Your task to perform on an android device: turn off priority inbox in the gmail app Image 0: 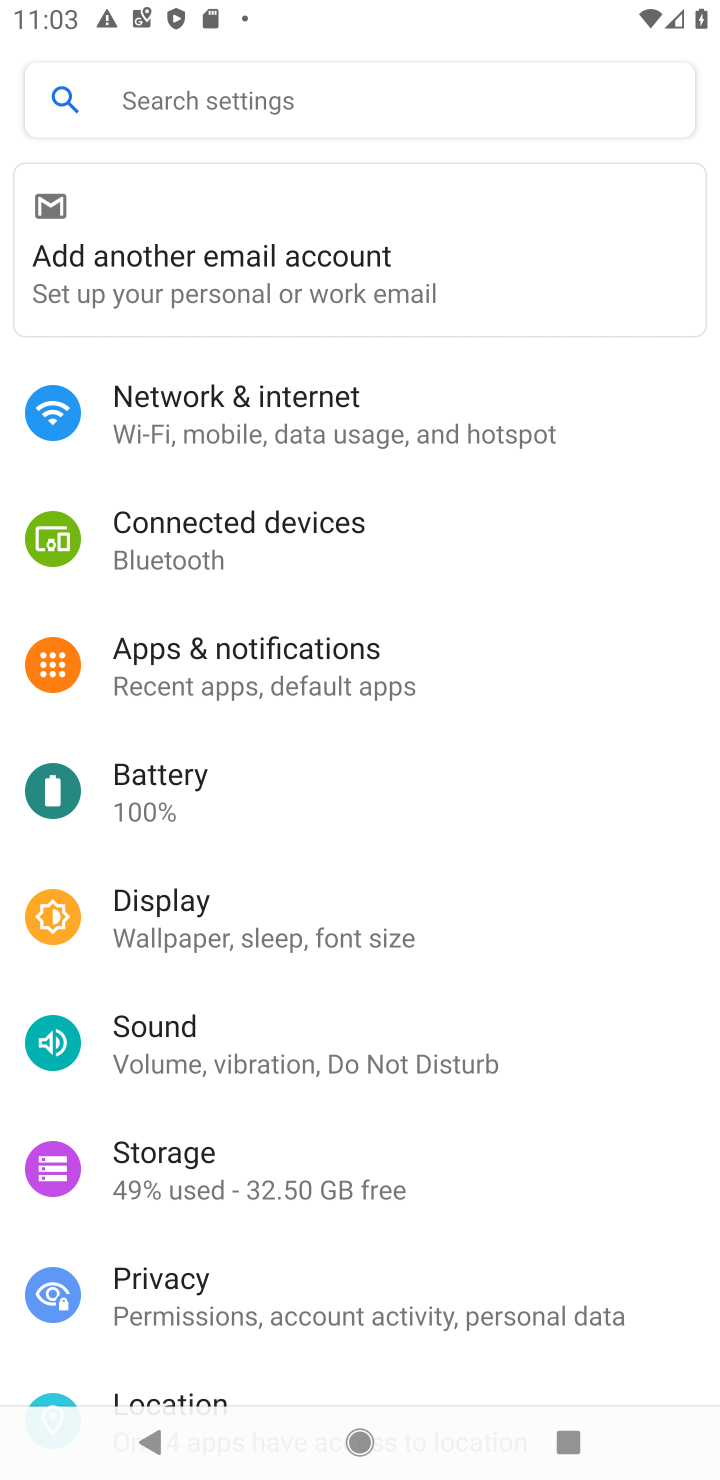
Step 0: click (299, 378)
Your task to perform on an android device: turn off priority inbox in the gmail app Image 1: 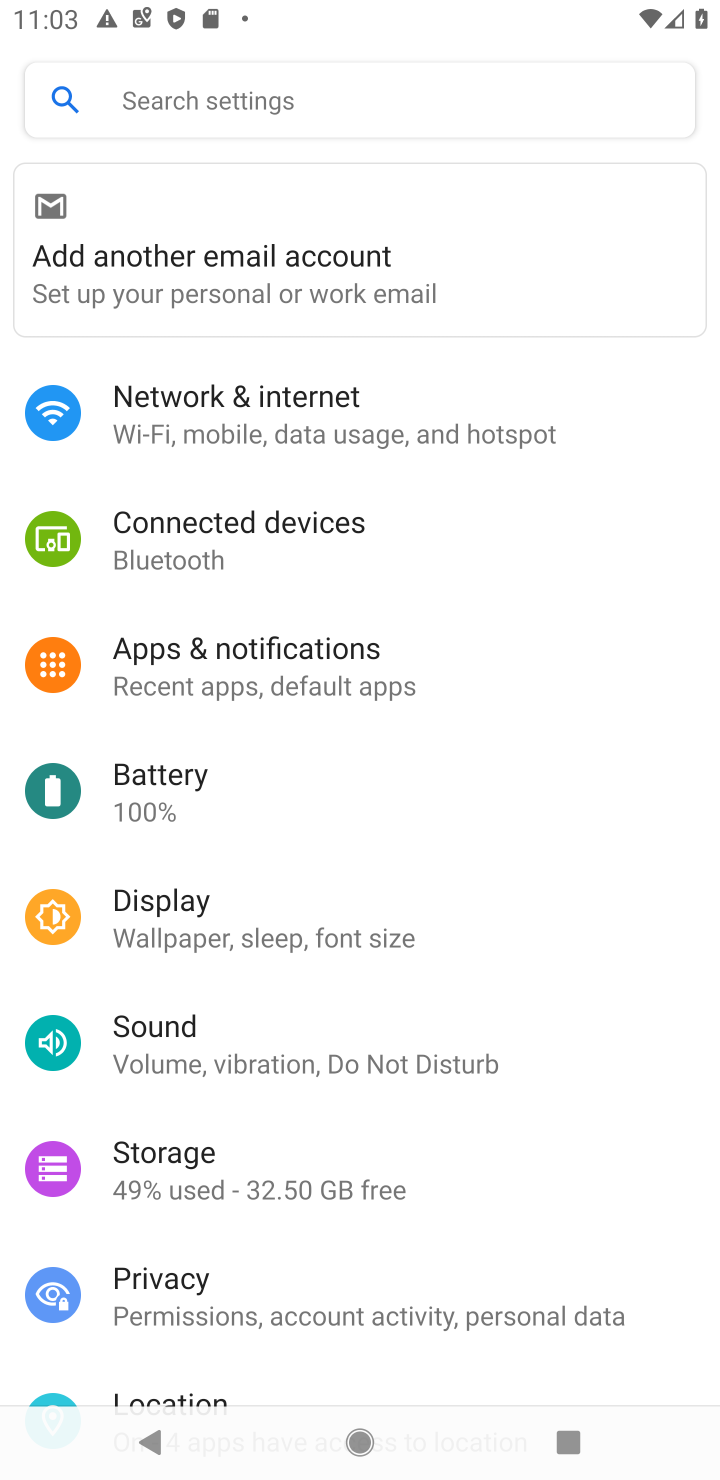
Step 1: drag from (370, 1172) to (104, 1056)
Your task to perform on an android device: turn off priority inbox in the gmail app Image 2: 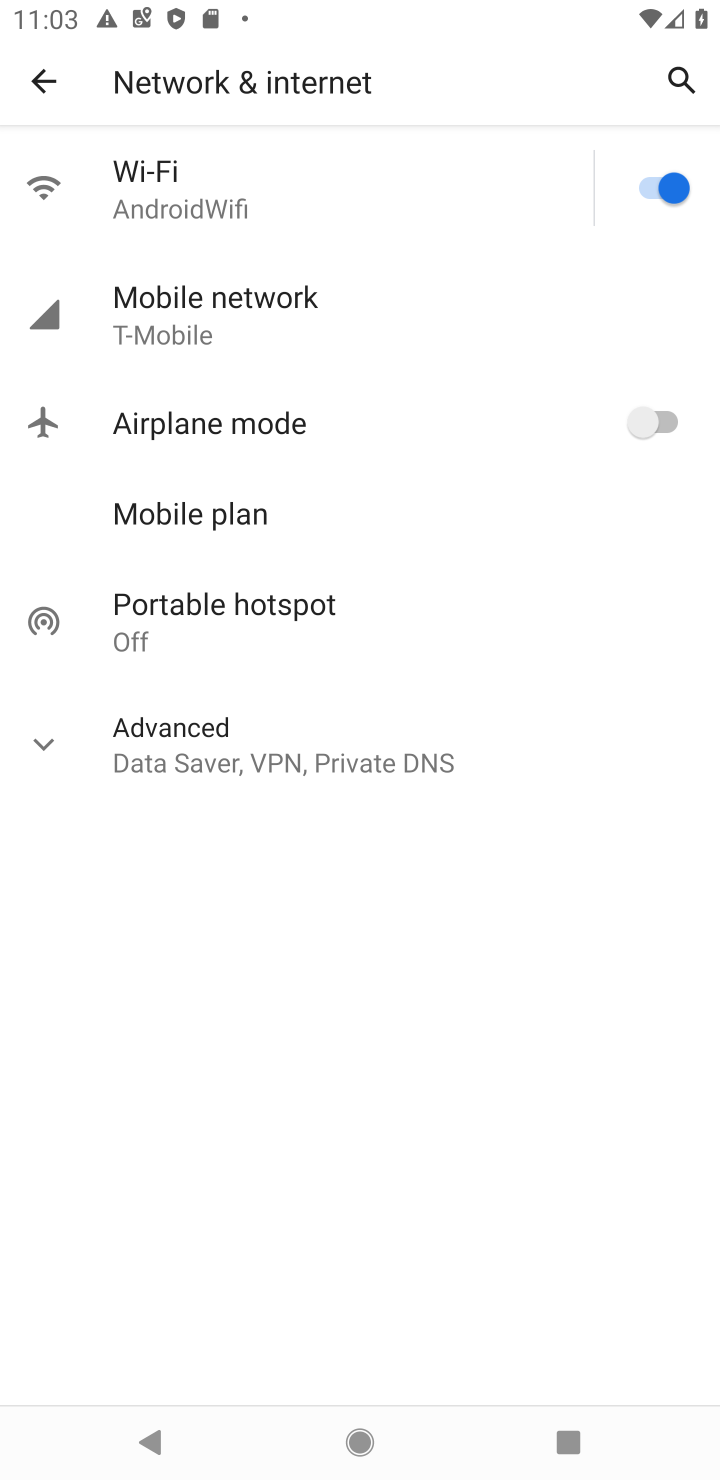
Step 2: drag from (347, 1102) to (385, 549)
Your task to perform on an android device: turn off priority inbox in the gmail app Image 3: 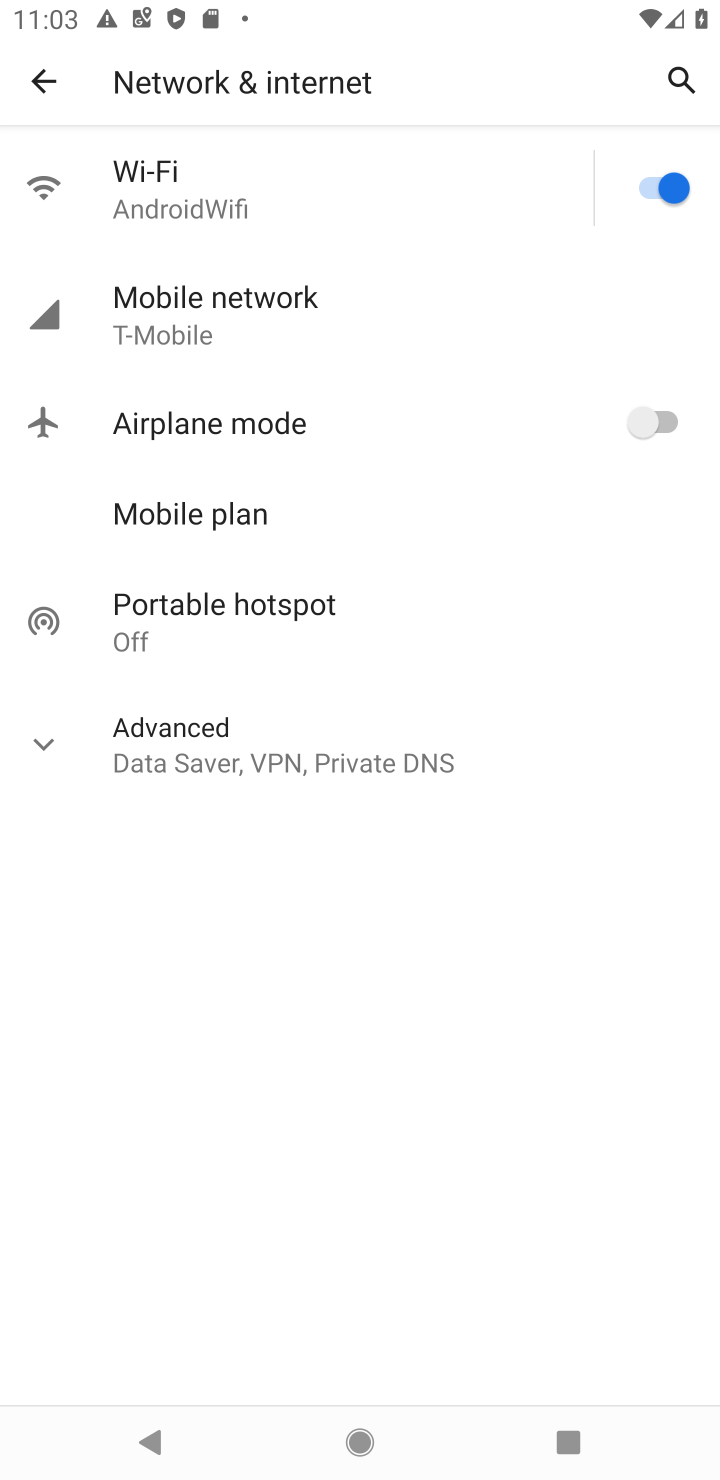
Step 3: drag from (394, 1120) to (392, 914)
Your task to perform on an android device: turn off priority inbox in the gmail app Image 4: 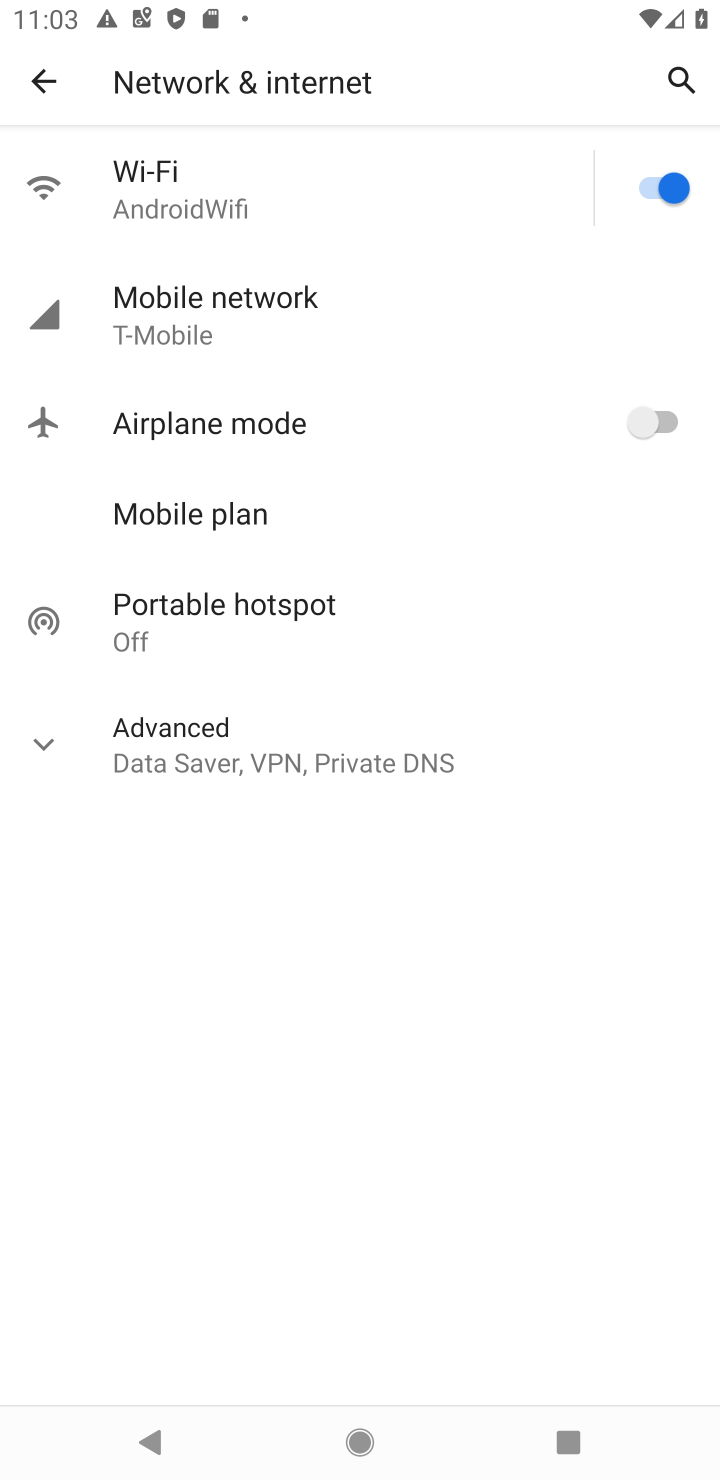
Step 4: drag from (358, 278) to (442, 1130)
Your task to perform on an android device: turn off priority inbox in the gmail app Image 5: 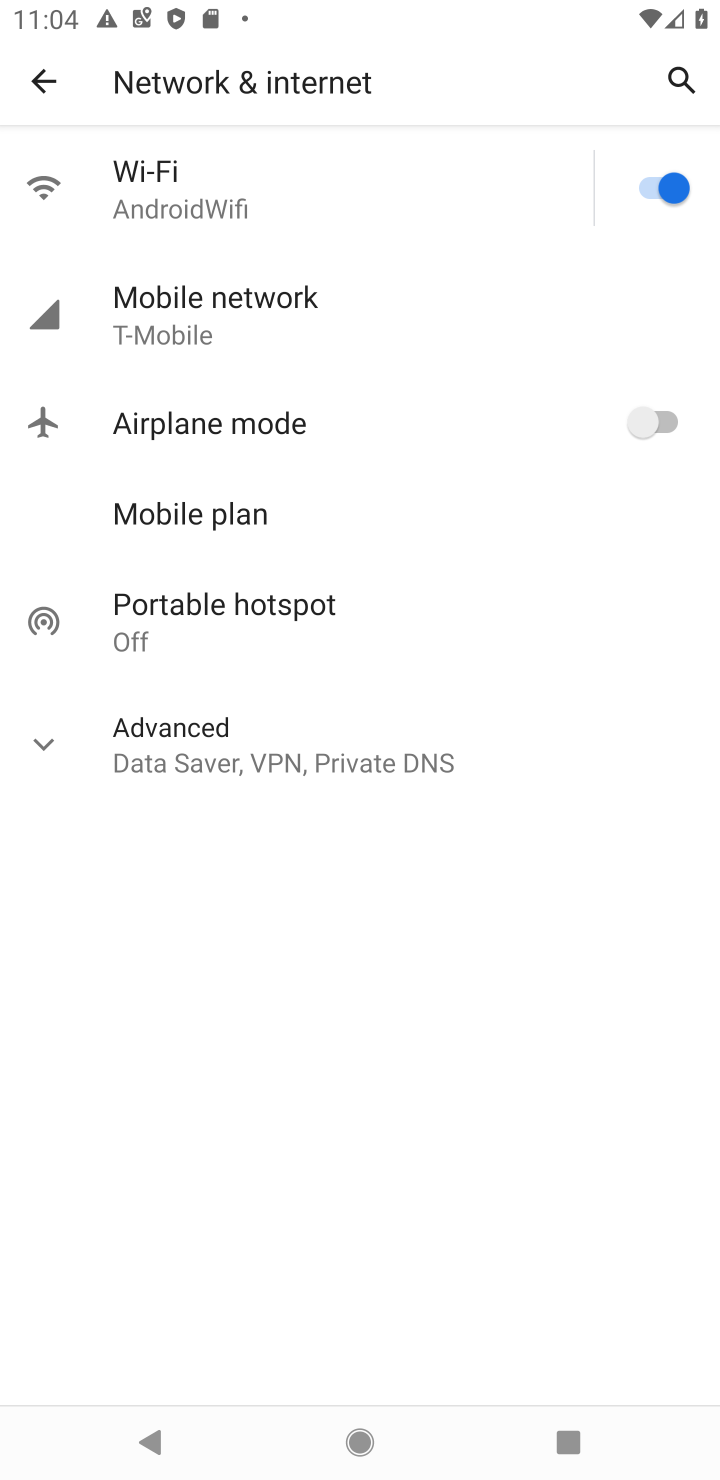
Step 5: press home button
Your task to perform on an android device: turn off priority inbox in the gmail app Image 6: 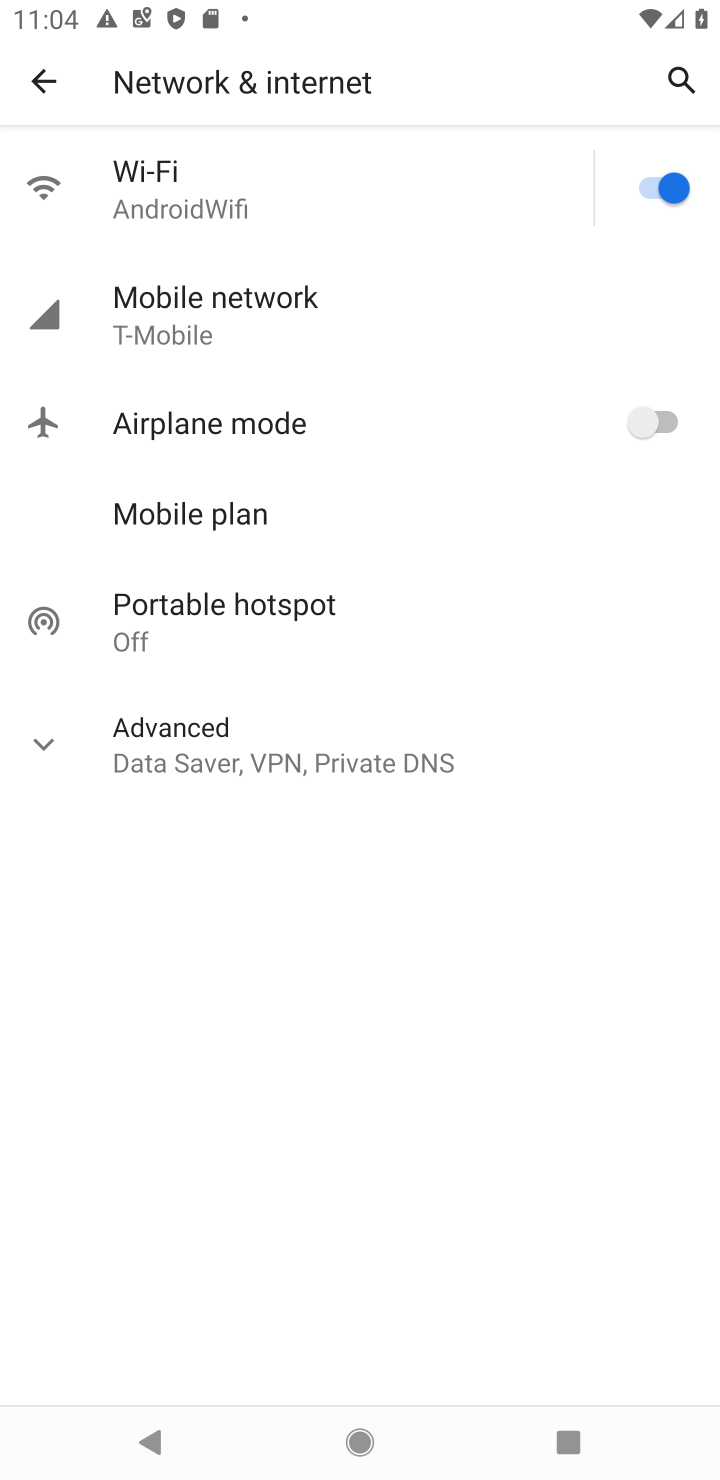
Step 6: click (318, 385)
Your task to perform on an android device: turn off priority inbox in the gmail app Image 7: 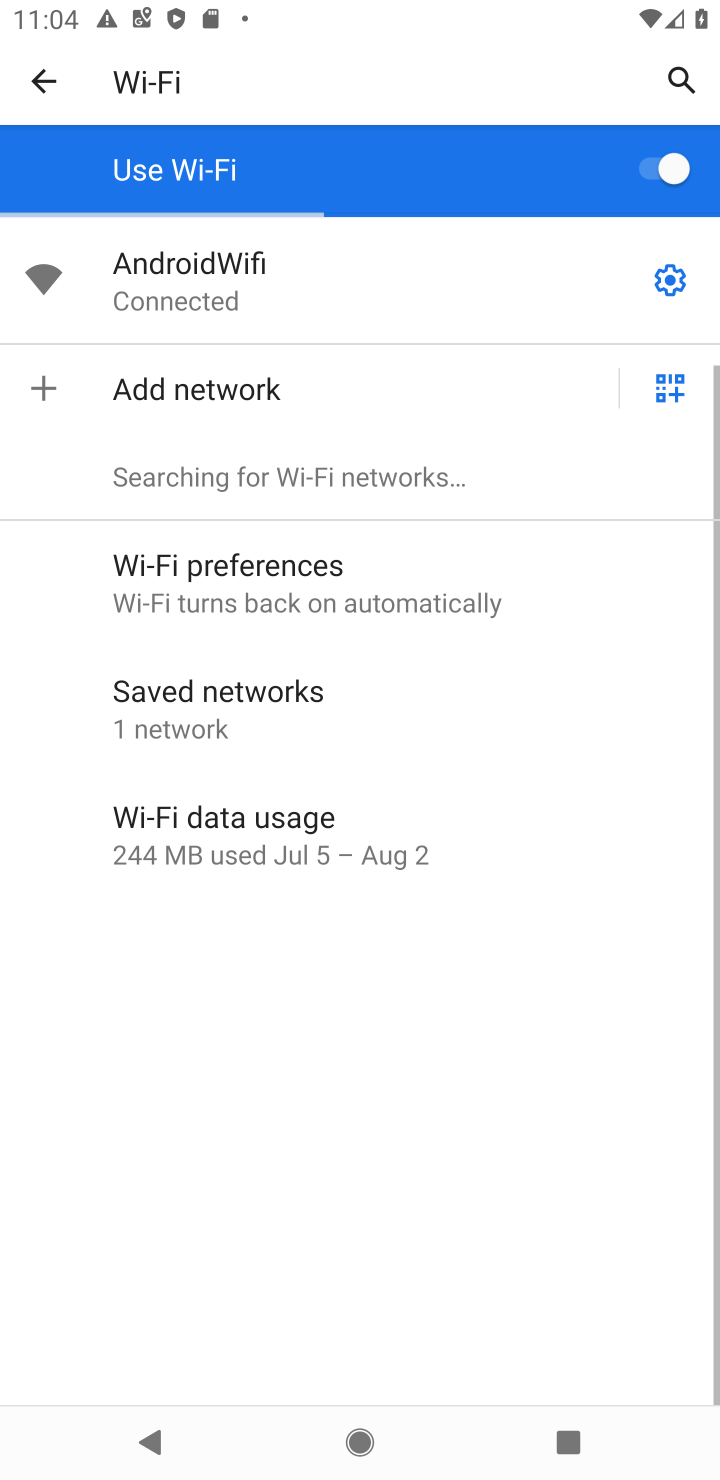
Step 7: drag from (371, 874) to (353, 181)
Your task to perform on an android device: turn off priority inbox in the gmail app Image 8: 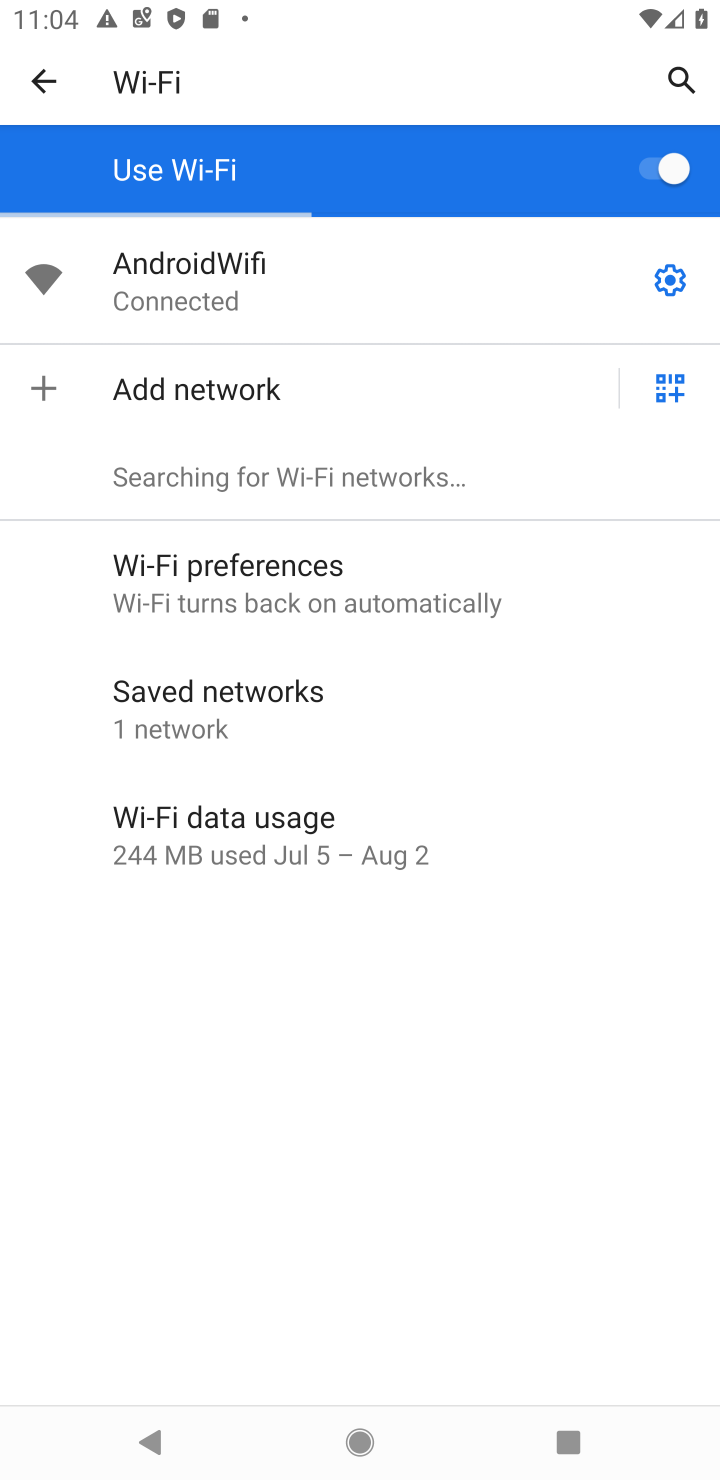
Step 8: press home button
Your task to perform on an android device: turn off priority inbox in the gmail app Image 9: 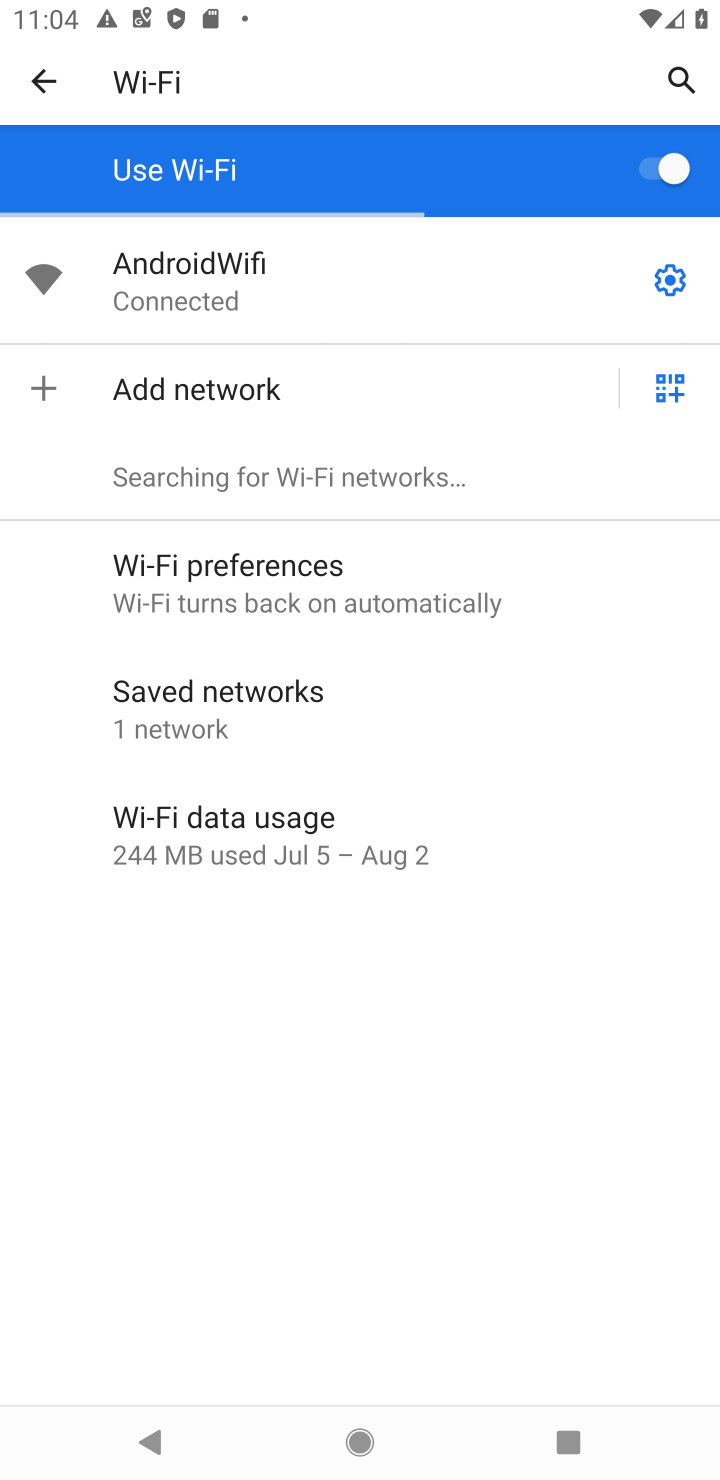
Step 9: click (385, 491)
Your task to perform on an android device: turn off priority inbox in the gmail app Image 10: 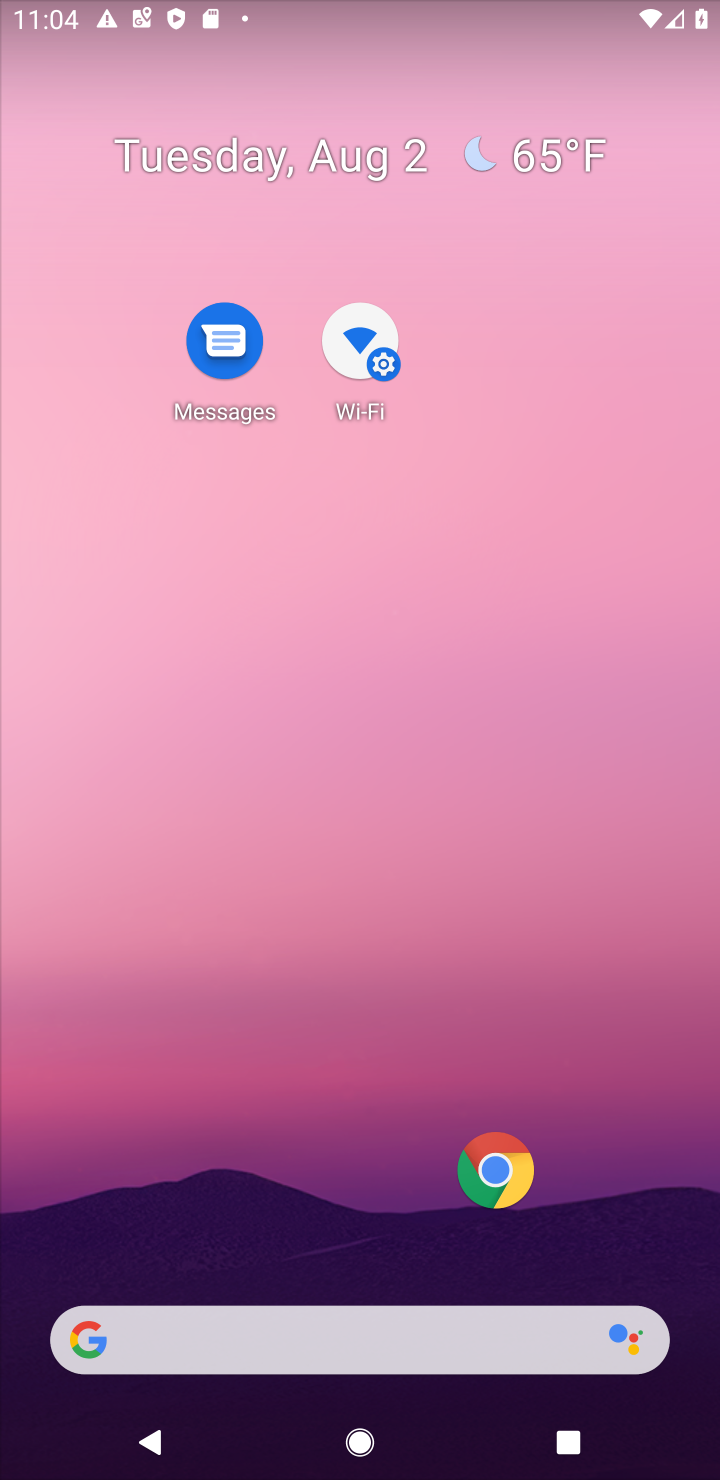
Step 10: drag from (308, 1090) to (340, 49)
Your task to perform on an android device: turn off priority inbox in the gmail app Image 11: 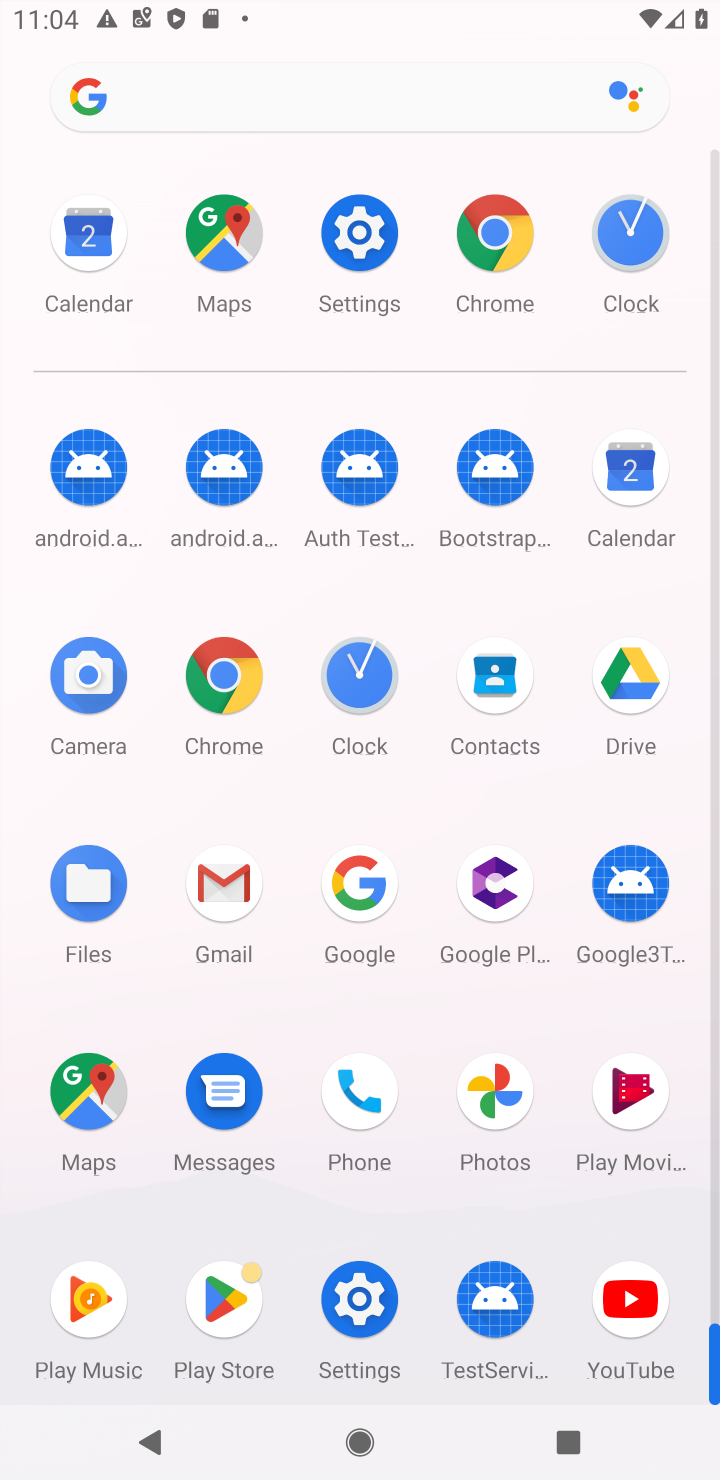
Step 11: click (203, 892)
Your task to perform on an android device: turn off priority inbox in the gmail app Image 12: 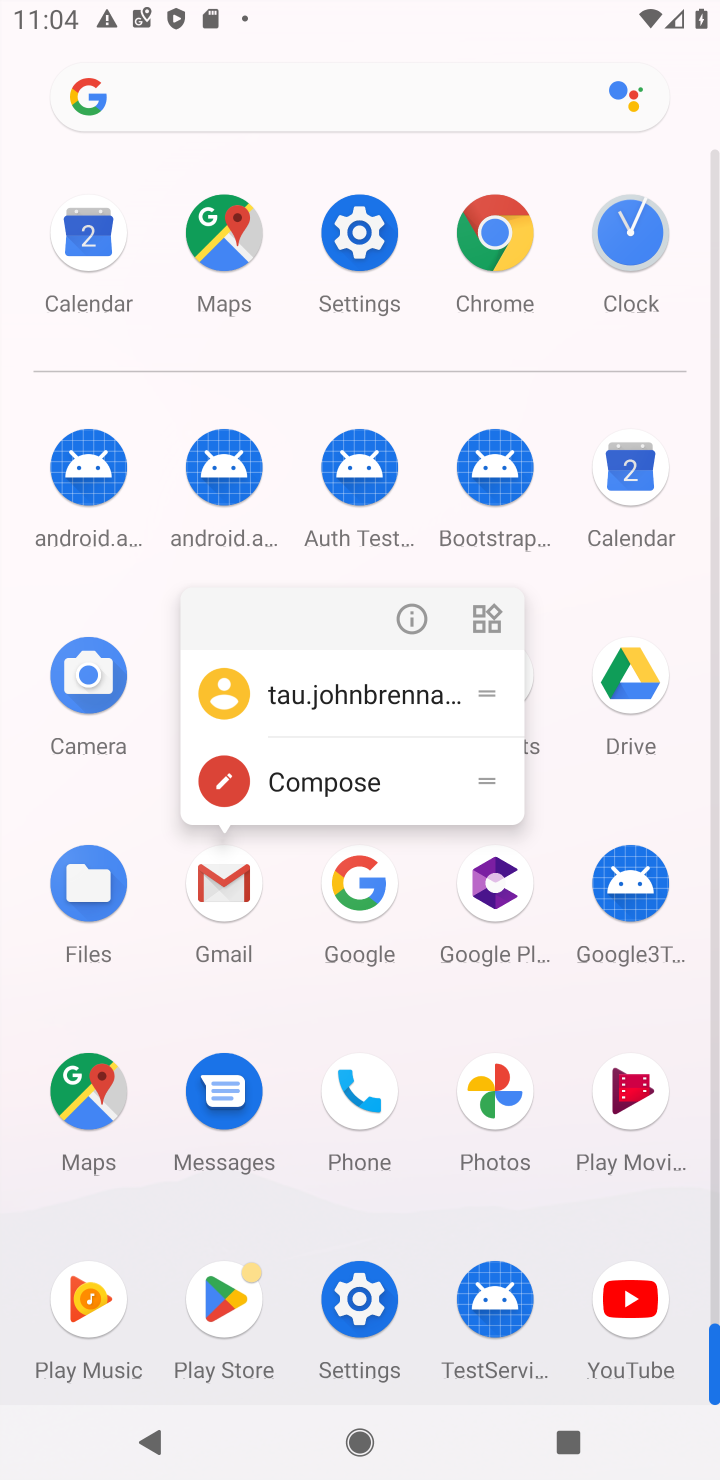
Step 12: click (404, 628)
Your task to perform on an android device: turn off priority inbox in the gmail app Image 13: 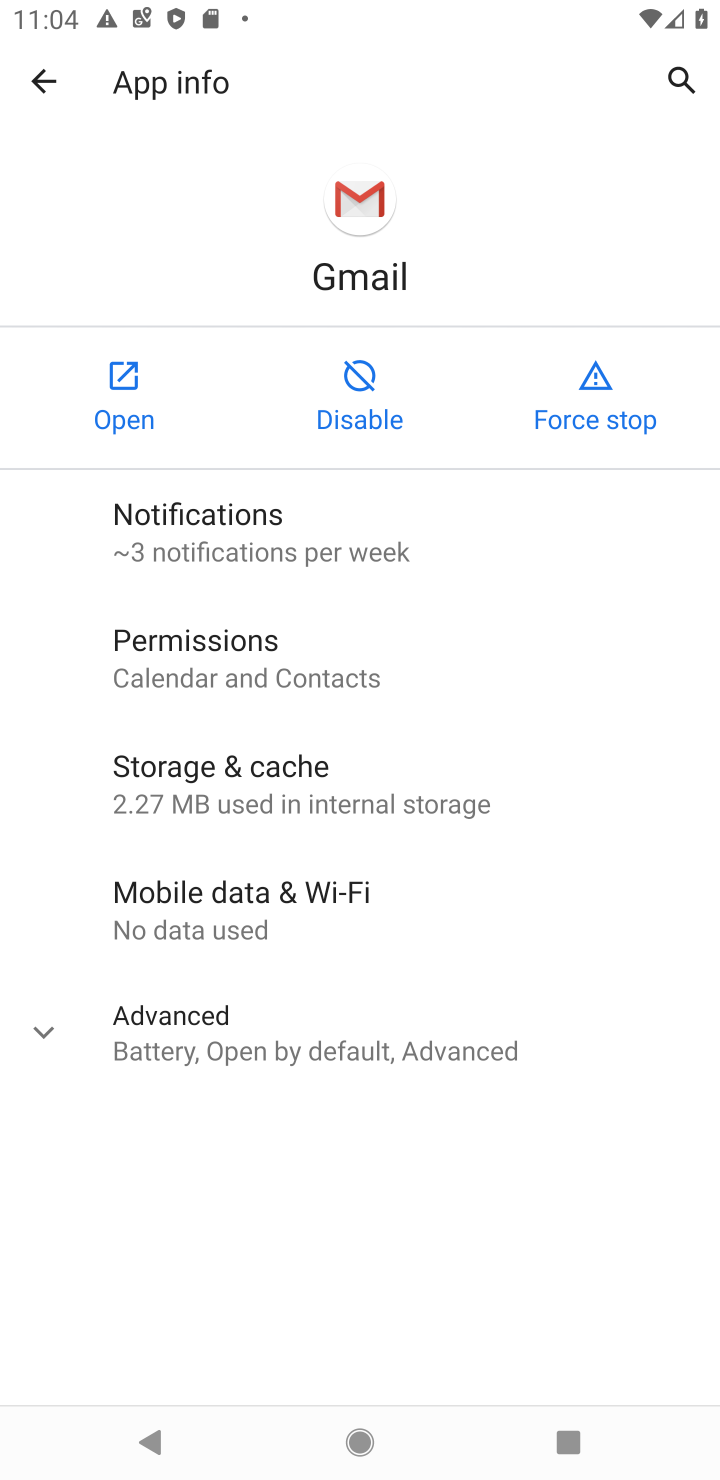
Step 13: click (143, 364)
Your task to perform on an android device: turn off priority inbox in the gmail app Image 14: 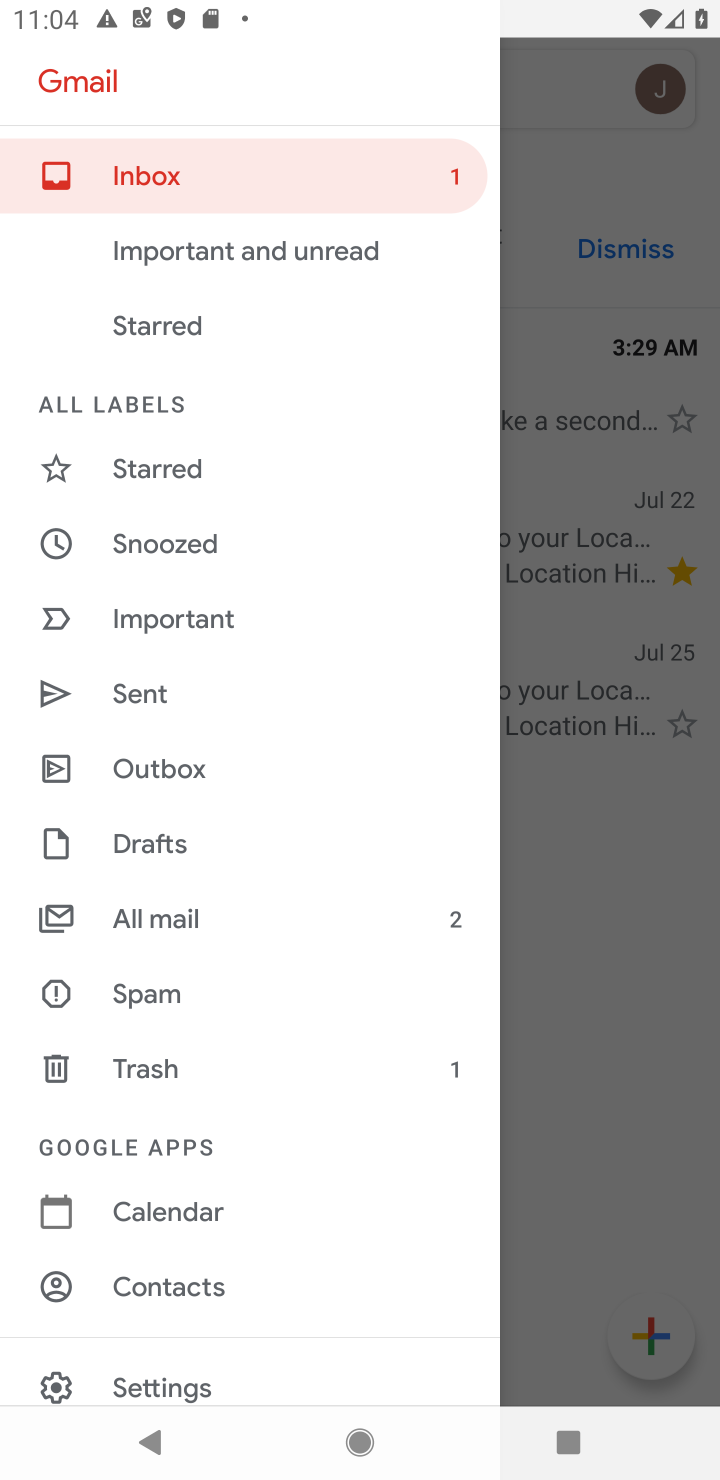
Step 14: drag from (161, 1113) to (438, 51)
Your task to perform on an android device: turn off priority inbox in the gmail app Image 15: 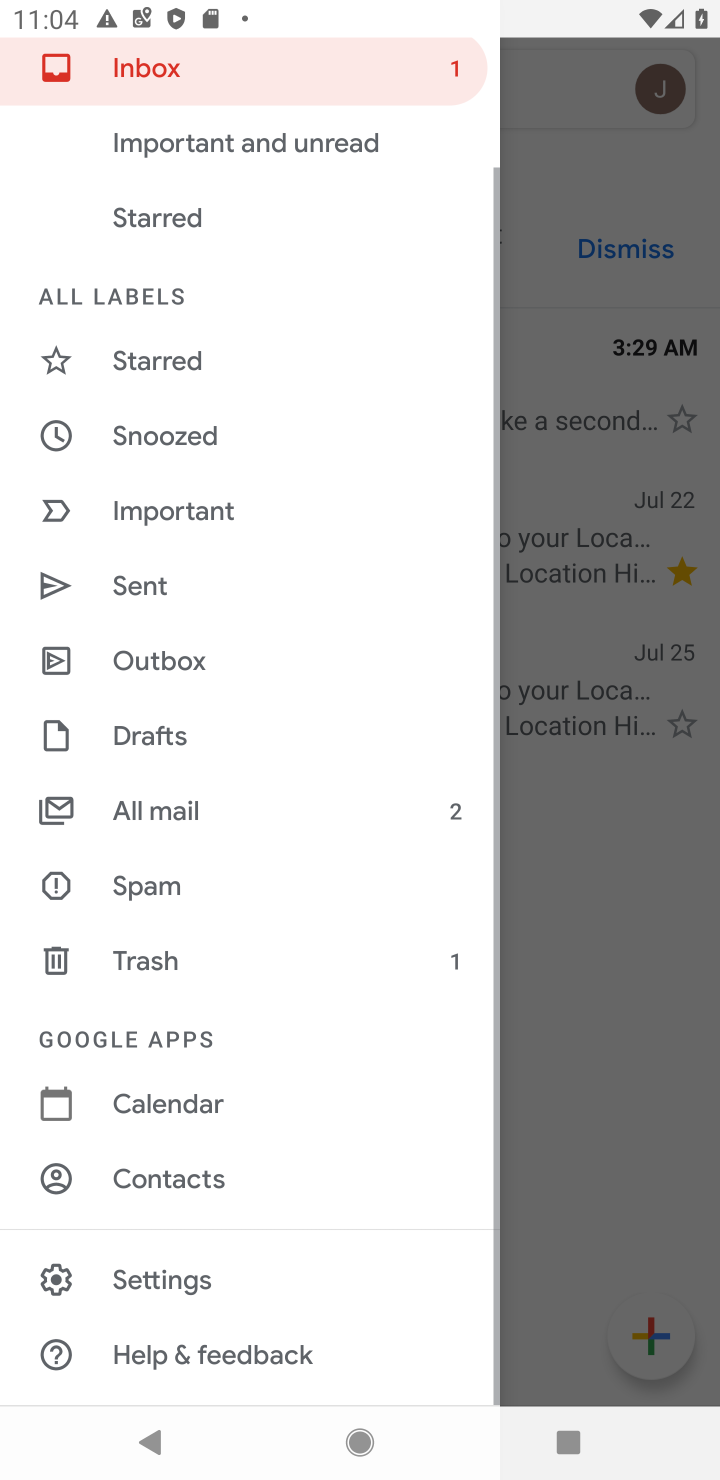
Step 15: click (189, 1265)
Your task to perform on an android device: turn off priority inbox in the gmail app Image 16: 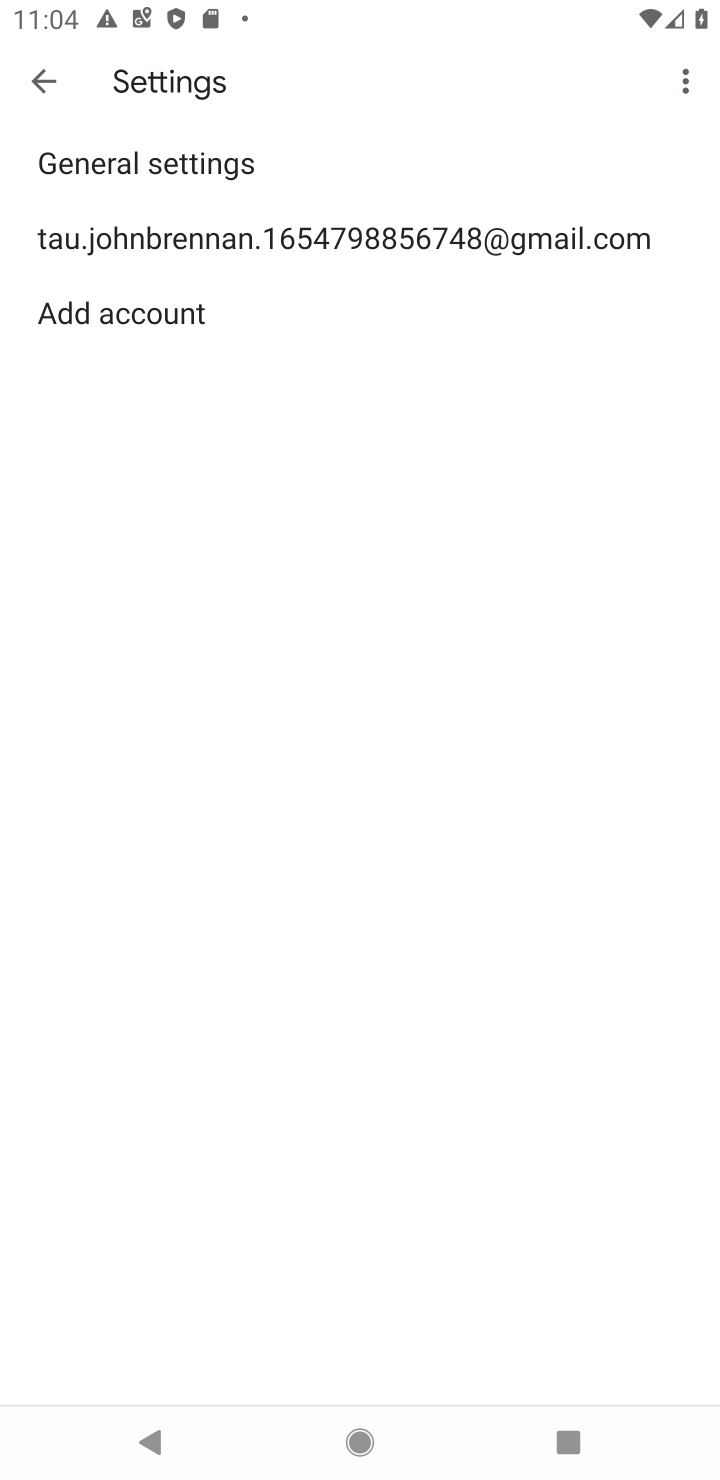
Step 16: click (178, 239)
Your task to perform on an android device: turn off priority inbox in the gmail app Image 17: 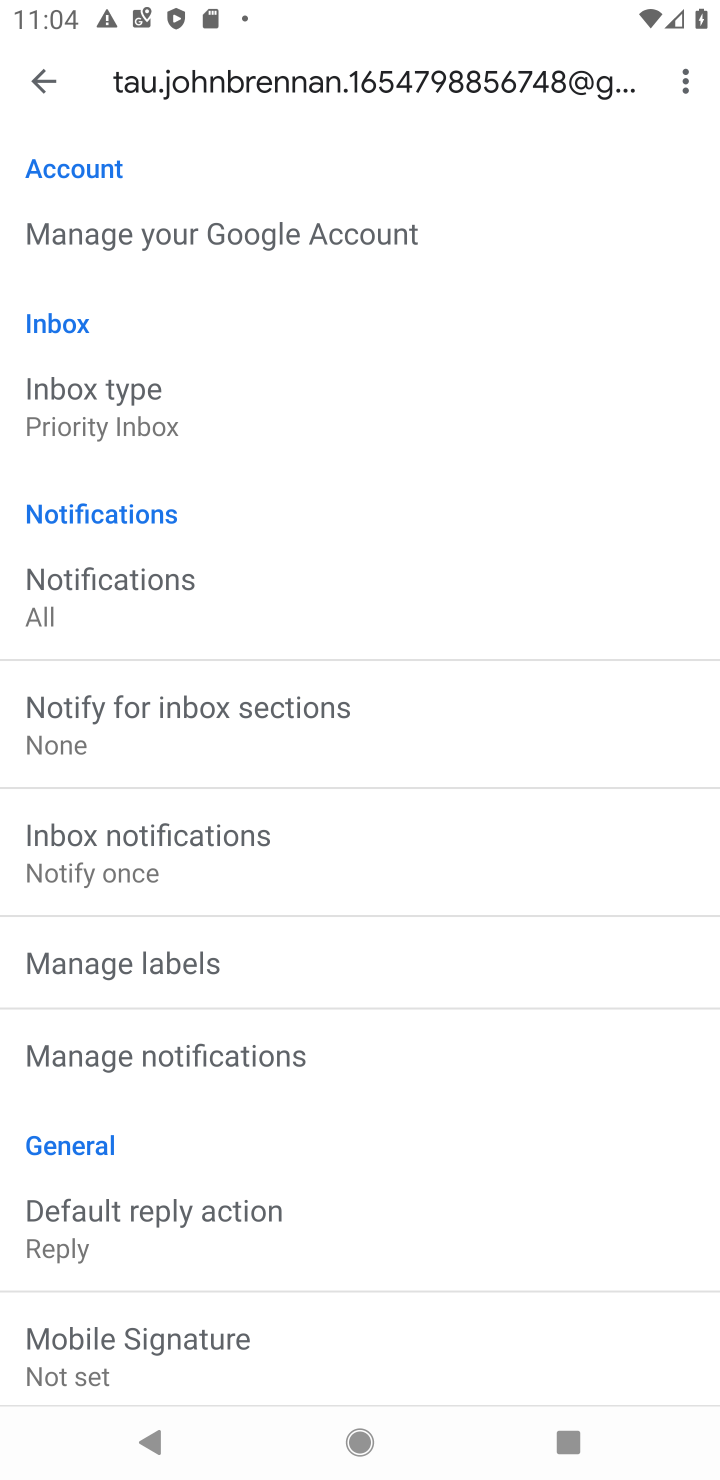
Step 17: click (119, 407)
Your task to perform on an android device: turn off priority inbox in the gmail app Image 18: 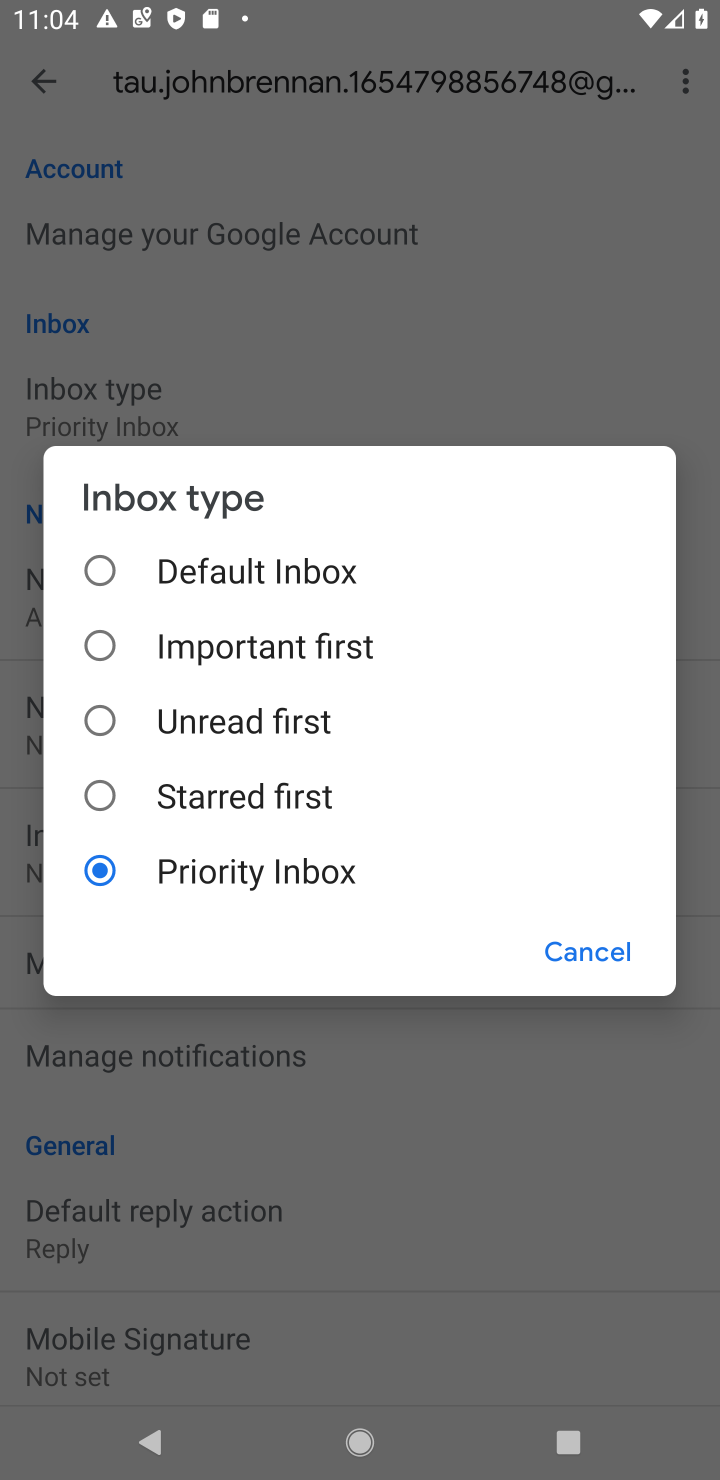
Step 18: click (148, 572)
Your task to perform on an android device: turn off priority inbox in the gmail app Image 19: 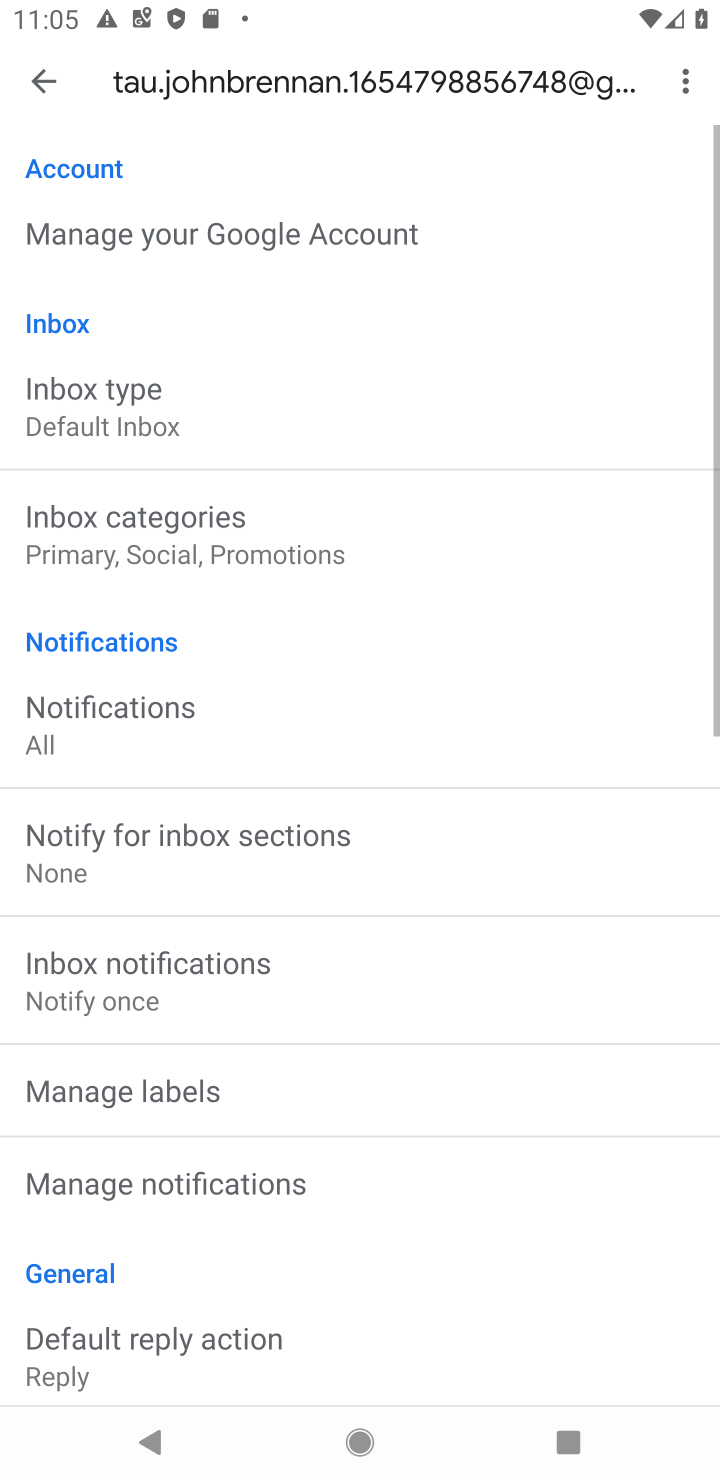
Step 19: task complete